Your task to perform on an android device: turn on the 12-hour format for clock Image 0: 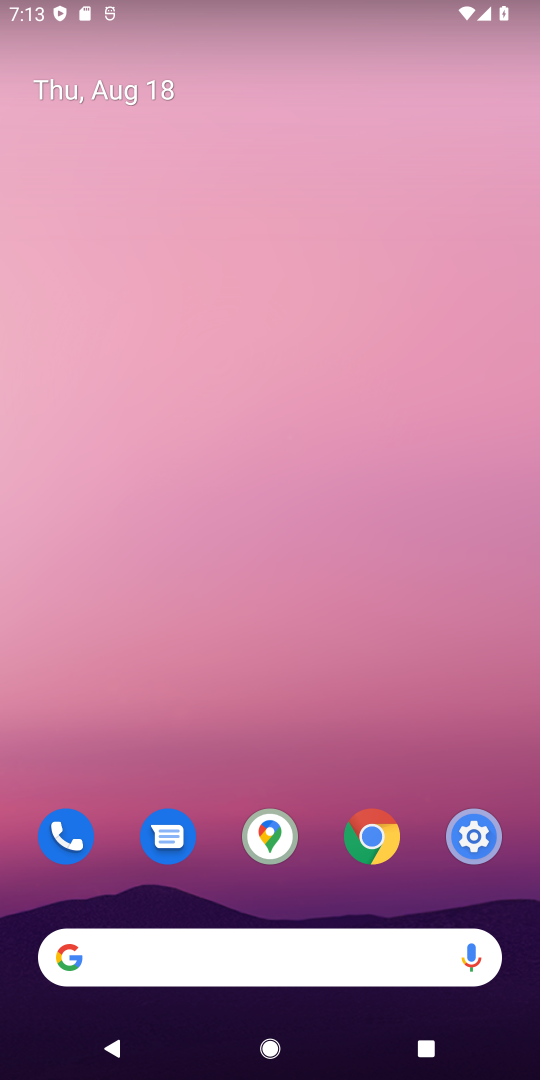
Step 0: drag from (330, 621) to (173, 37)
Your task to perform on an android device: turn on the 12-hour format for clock Image 1: 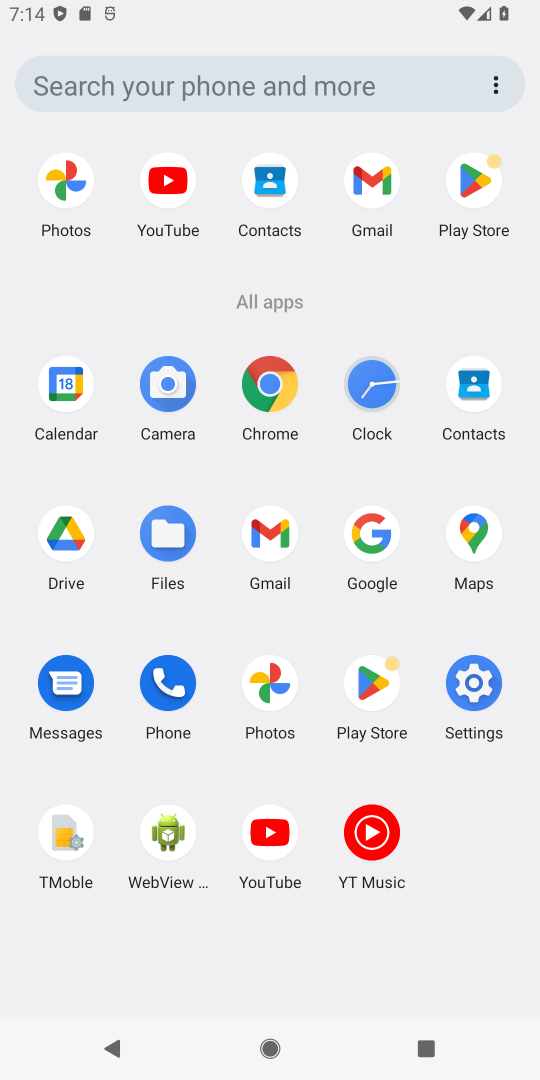
Step 1: click (372, 383)
Your task to perform on an android device: turn on the 12-hour format for clock Image 2: 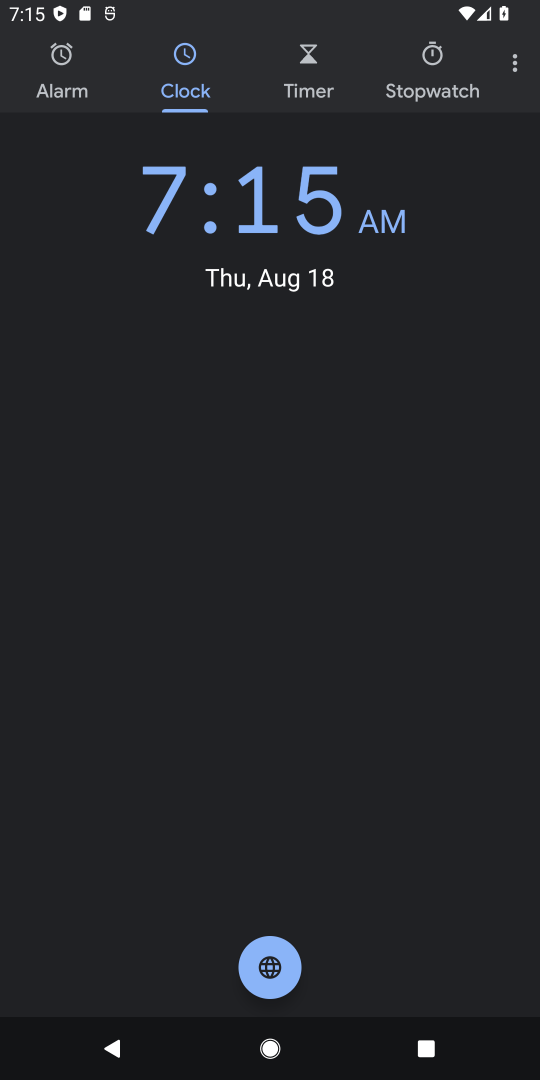
Step 2: click (509, 55)
Your task to perform on an android device: turn on the 12-hour format for clock Image 3: 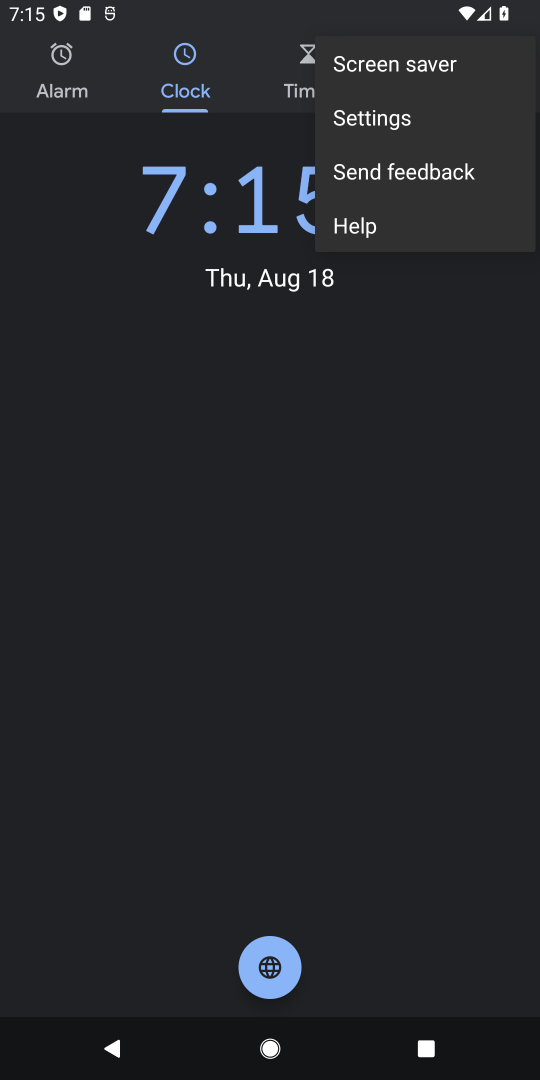
Step 3: click (363, 121)
Your task to perform on an android device: turn on the 12-hour format for clock Image 4: 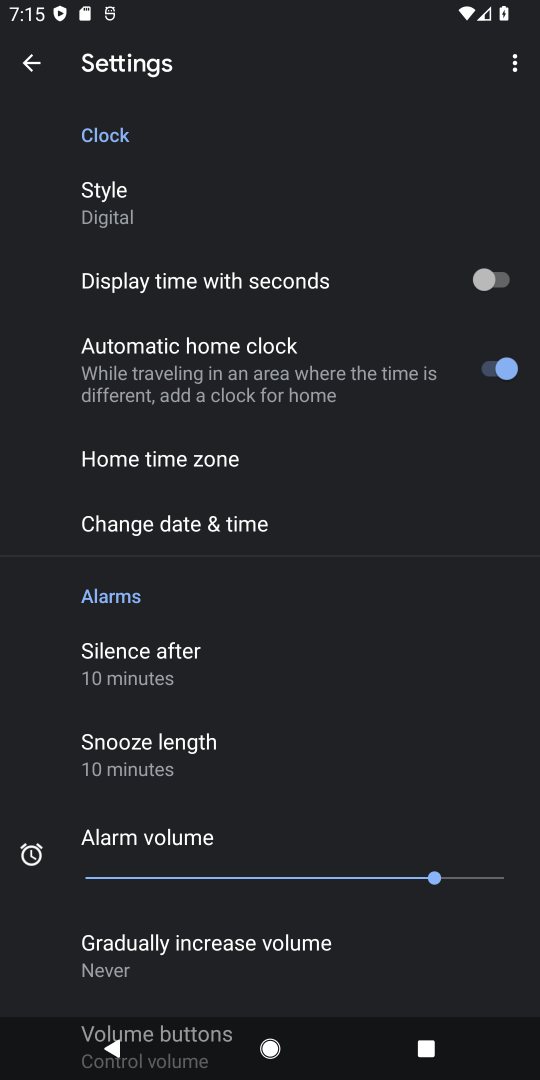
Step 4: drag from (314, 948) to (330, 324)
Your task to perform on an android device: turn on the 12-hour format for clock Image 5: 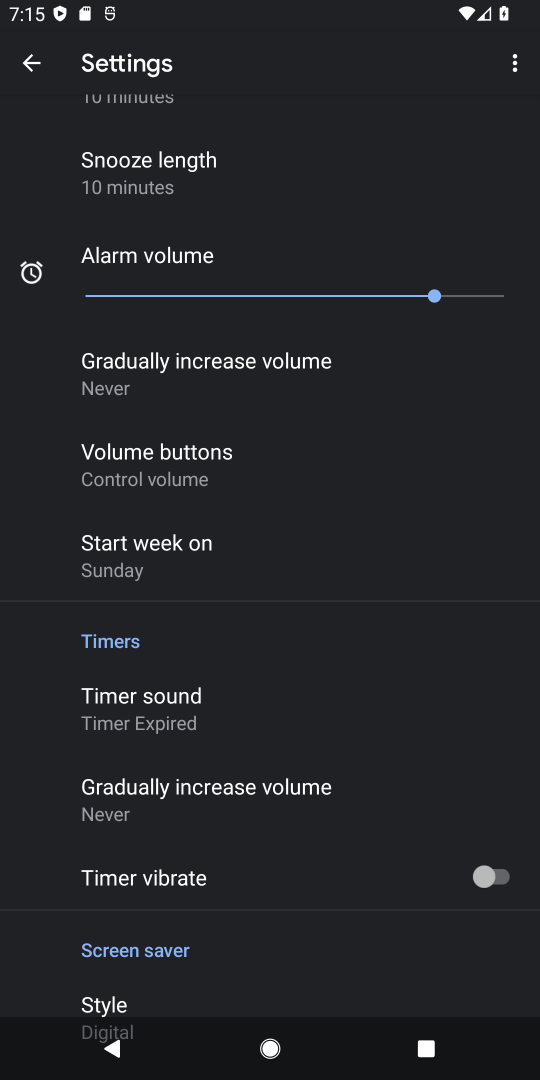
Step 5: drag from (297, 467) to (308, 1077)
Your task to perform on an android device: turn on the 12-hour format for clock Image 6: 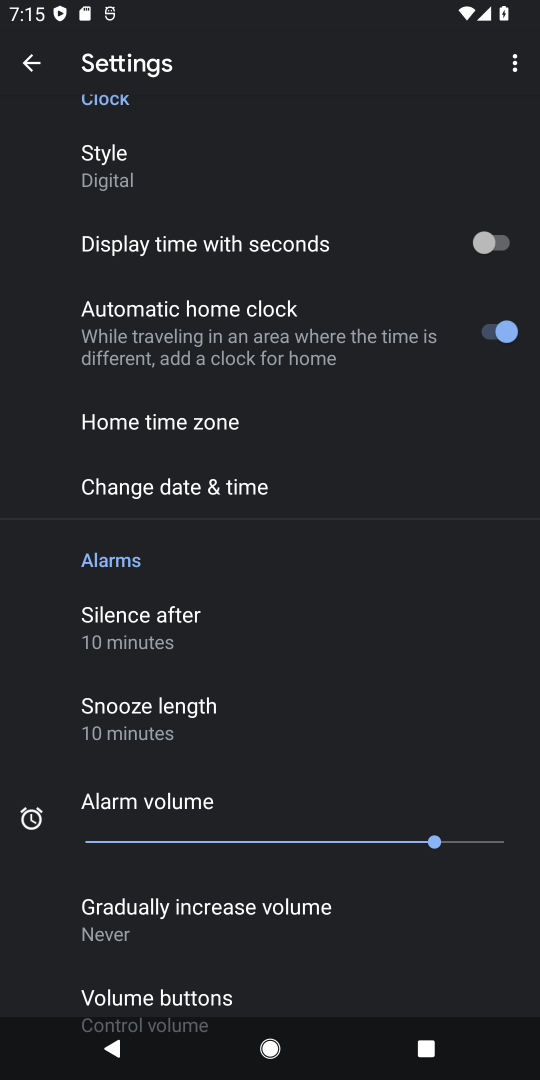
Step 6: click (202, 473)
Your task to perform on an android device: turn on the 12-hour format for clock Image 7: 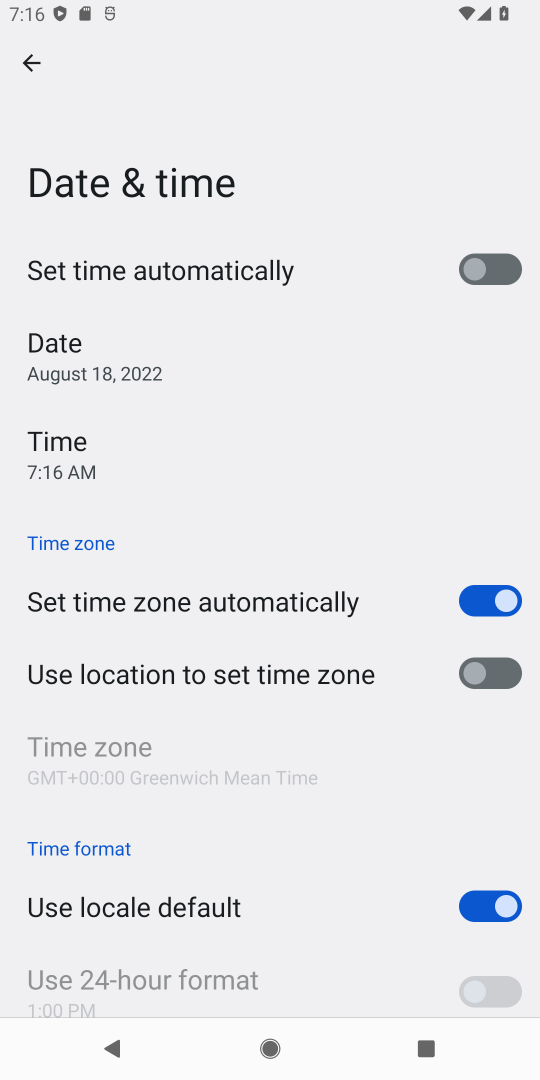
Step 7: task complete